Your task to perform on an android device: change the clock display to digital Image 0: 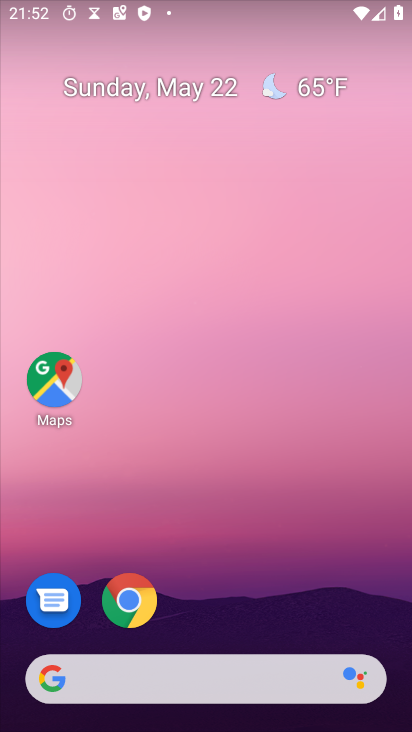
Step 0: drag from (215, 651) to (145, 275)
Your task to perform on an android device: change the clock display to digital Image 1: 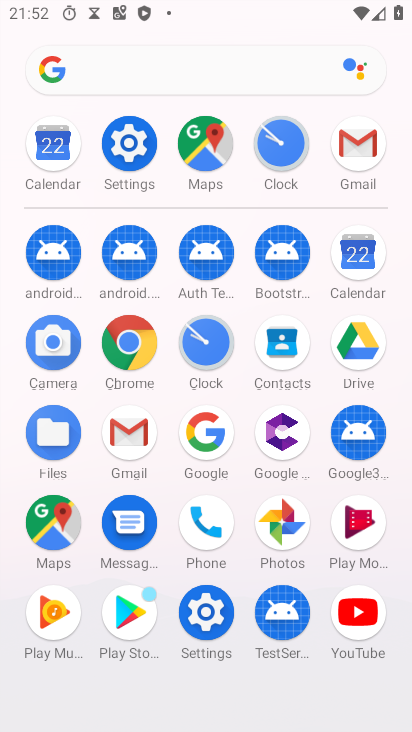
Step 1: click (278, 158)
Your task to perform on an android device: change the clock display to digital Image 2: 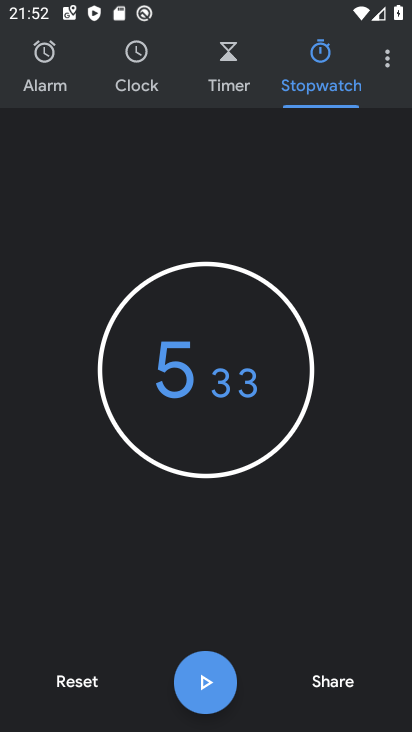
Step 2: click (142, 77)
Your task to perform on an android device: change the clock display to digital Image 3: 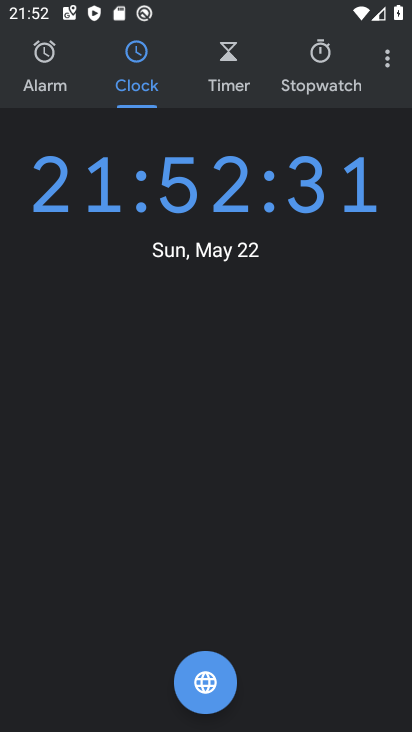
Step 3: click (394, 66)
Your task to perform on an android device: change the clock display to digital Image 4: 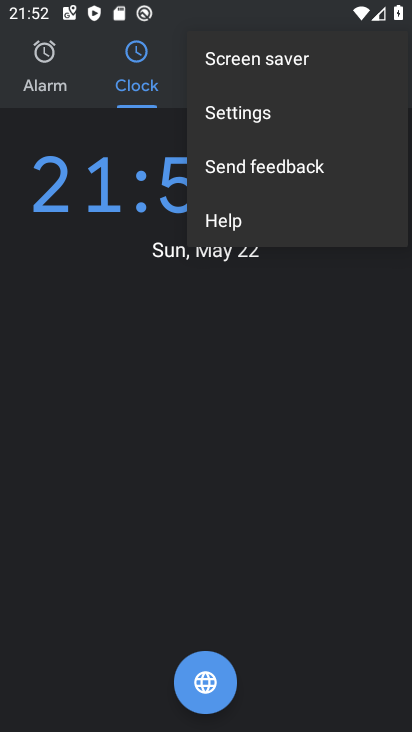
Step 4: click (295, 122)
Your task to perform on an android device: change the clock display to digital Image 5: 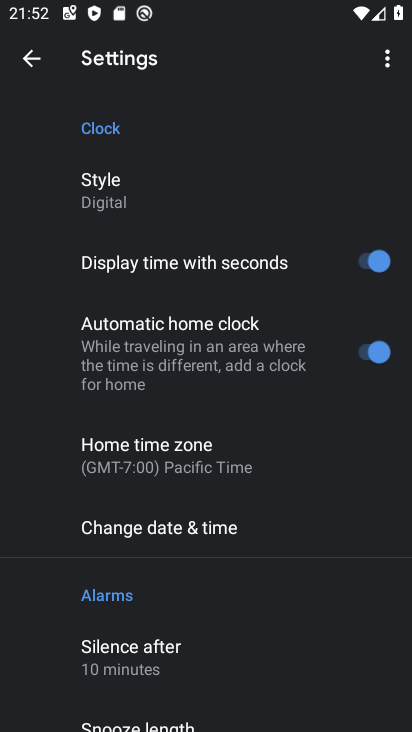
Step 5: task complete